Your task to perform on an android device: turn off notifications settings in the gmail app Image 0: 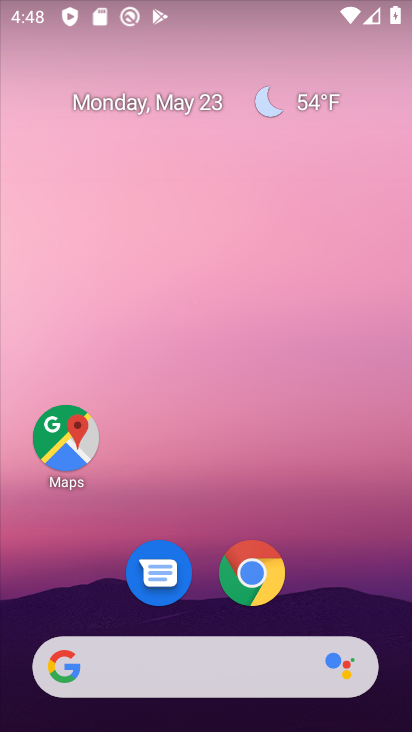
Step 0: drag from (204, 725) to (191, 17)
Your task to perform on an android device: turn off notifications settings in the gmail app Image 1: 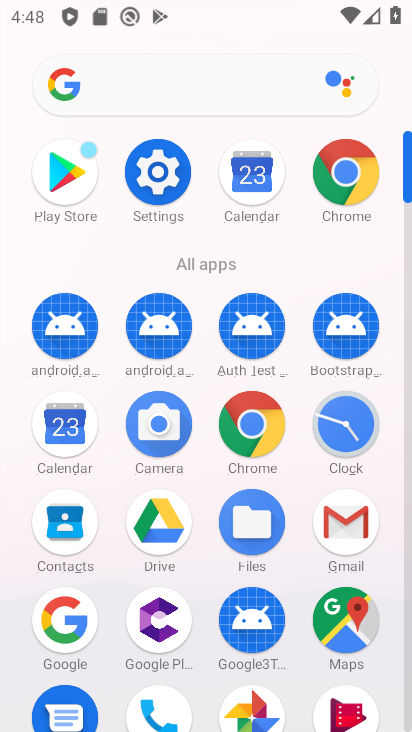
Step 1: click (342, 516)
Your task to perform on an android device: turn off notifications settings in the gmail app Image 2: 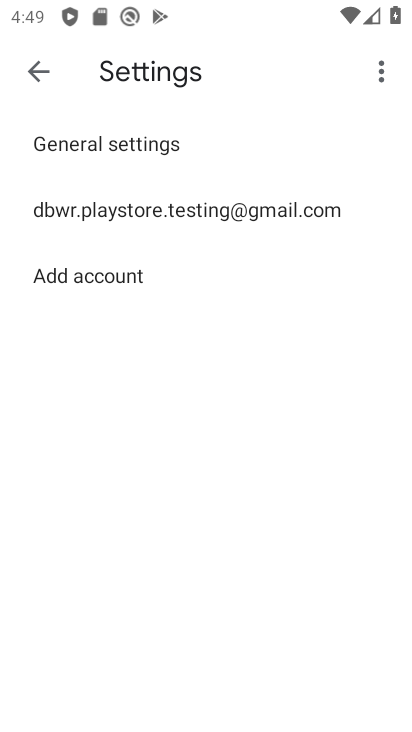
Step 2: click (161, 205)
Your task to perform on an android device: turn off notifications settings in the gmail app Image 3: 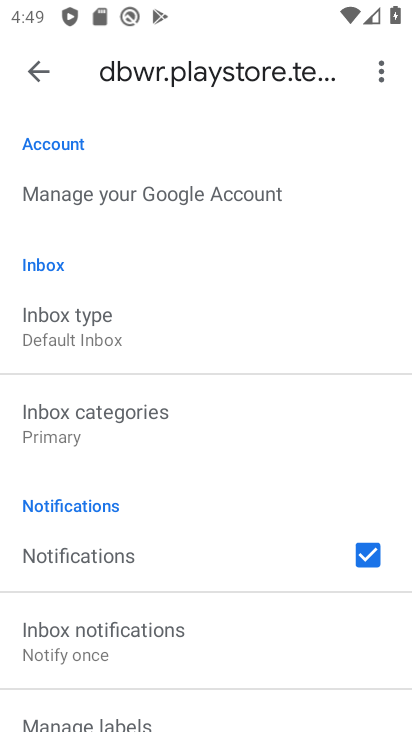
Step 3: click (370, 551)
Your task to perform on an android device: turn off notifications settings in the gmail app Image 4: 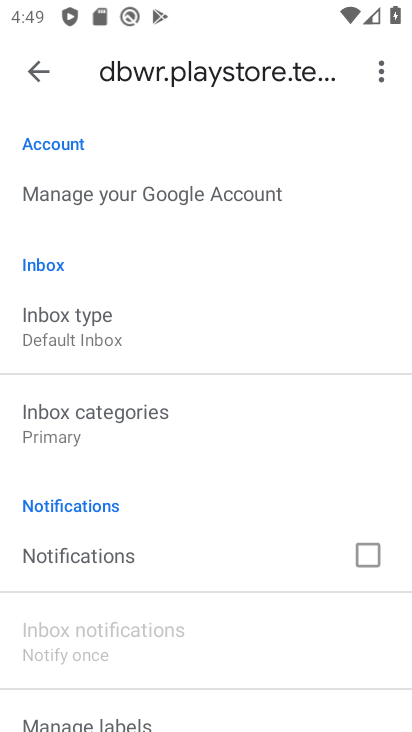
Step 4: task complete